Your task to perform on an android device: Show me popular games on the Play Store Image 0: 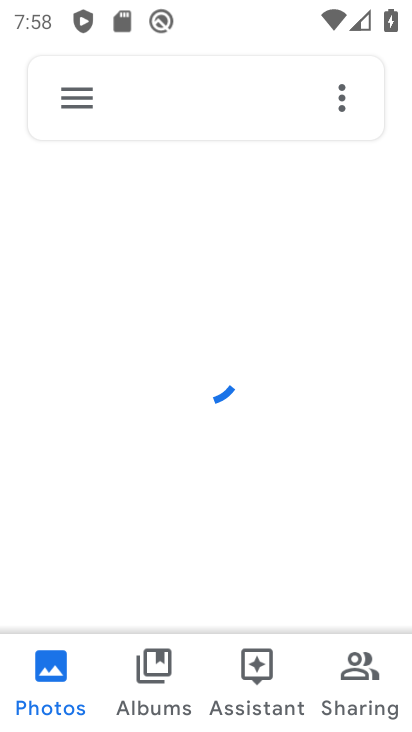
Step 0: press home button
Your task to perform on an android device: Show me popular games on the Play Store Image 1: 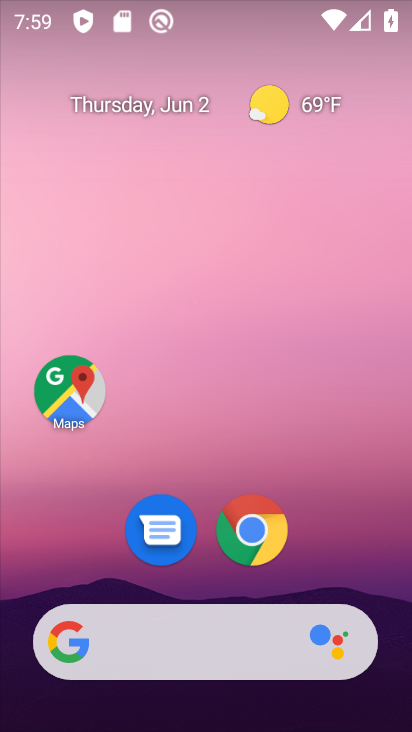
Step 1: drag from (204, 592) to (197, 40)
Your task to perform on an android device: Show me popular games on the Play Store Image 2: 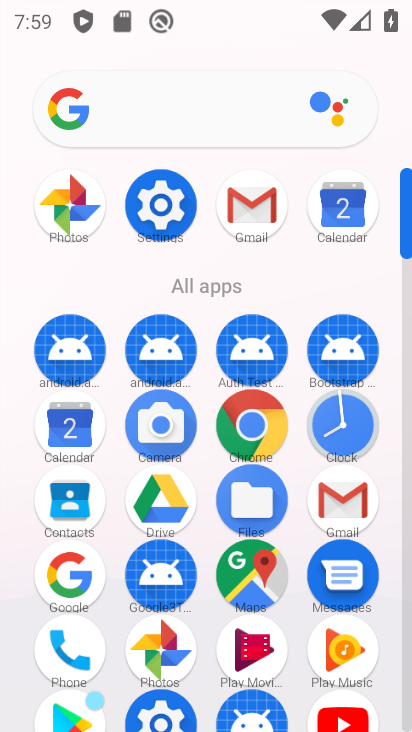
Step 2: click (70, 702)
Your task to perform on an android device: Show me popular games on the Play Store Image 3: 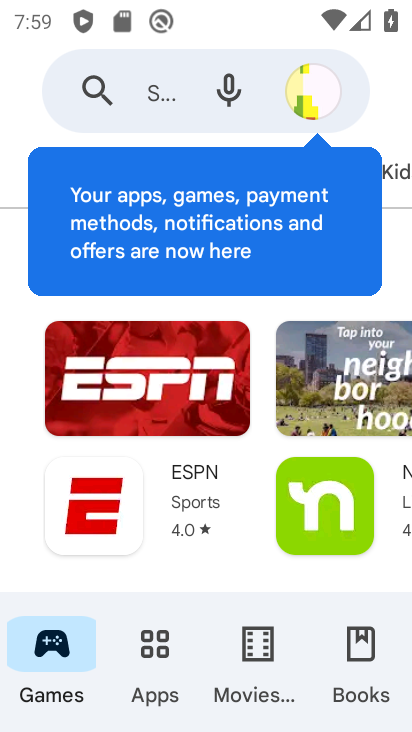
Step 3: drag from (202, 473) to (183, 120)
Your task to perform on an android device: Show me popular games on the Play Store Image 4: 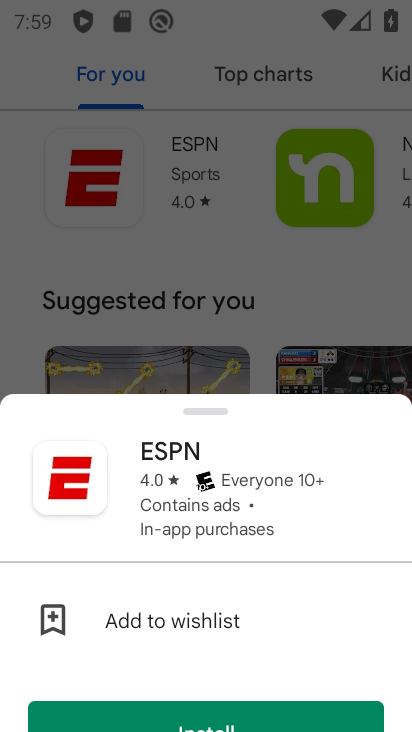
Step 4: drag from (195, 309) to (168, 74)
Your task to perform on an android device: Show me popular games on the Play Store Image 5: 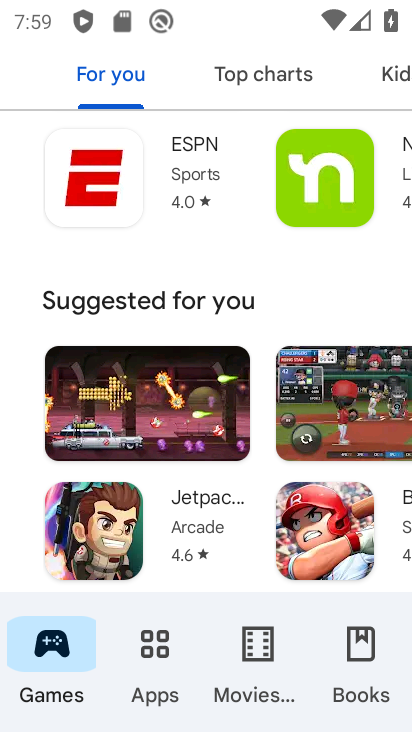
Step 5: drag from (215, 424) to (167, 68)
Your task to perform on an android device: Show me popular games on the Play Store Image 6: 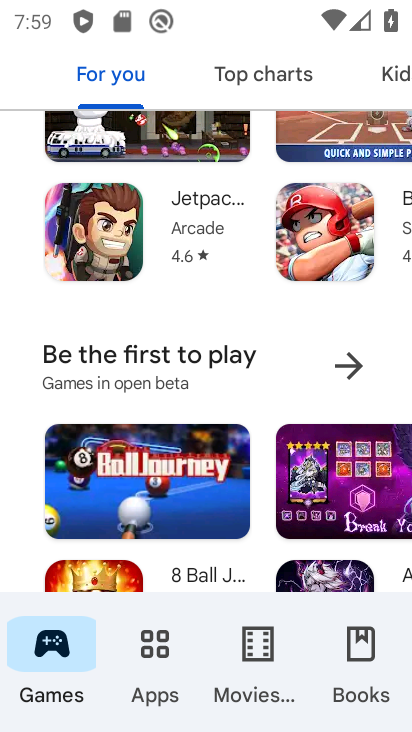
Step 6: drag from (254, 469) to (216, 22)
Your task to perform on an android device: Show me popular games on the Play Store Image 7: 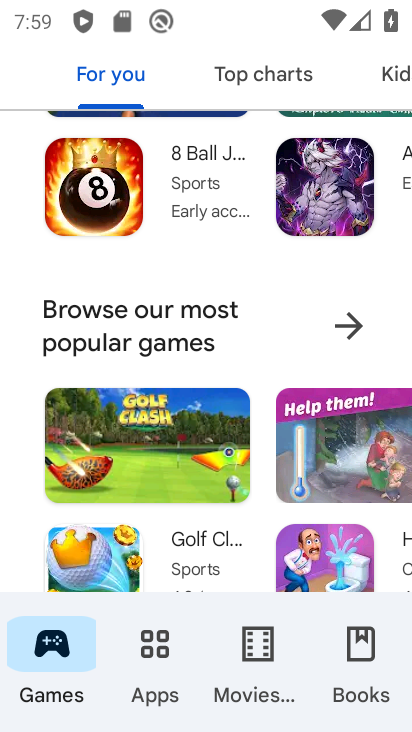
Step 7: click (345, 317)
Your task to perform on an android device: Show me popular games on the Play Store Image 8: 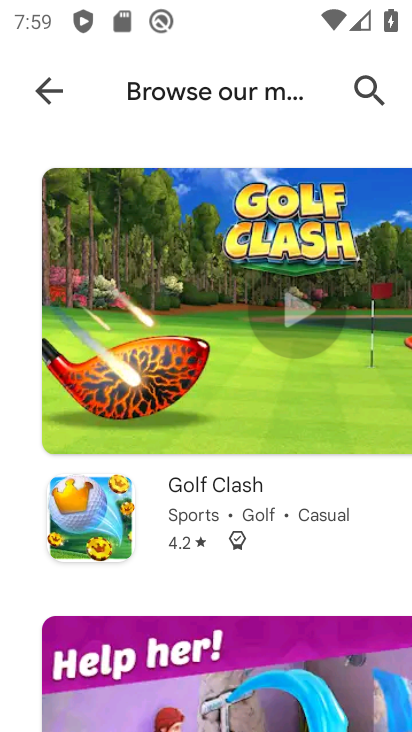
Step 8: task complete